Your task to perform on an android device: Open Google Chrome and open the bookmarks view Image 0: 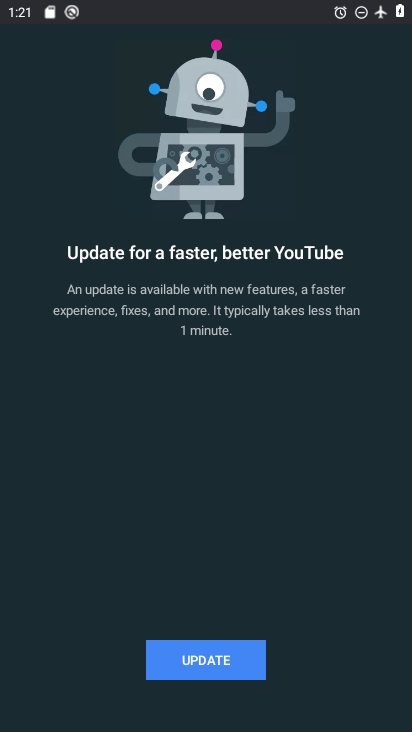
Step 0: press home button
Your task to perform on an android device: Open Google Chrome and open the bookmarks view Image 1: 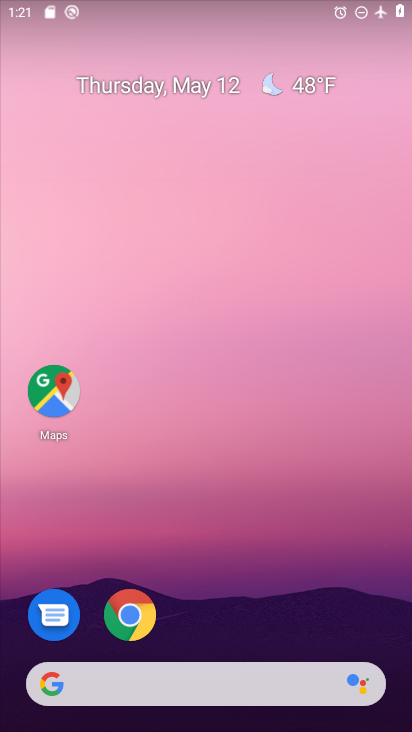
Step 1: drag from (329, 677) to (296, 3)
Your task to perform on an android device: Open Google Chrome and open the bookmarks view Image 2: 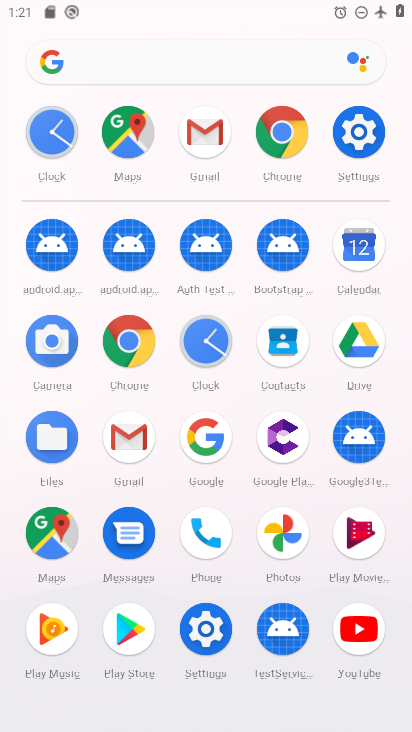
Step 2: click (127, 345)
Your task to perform on an android device: Open Google Chrome and open the bookmarks view Image 3: 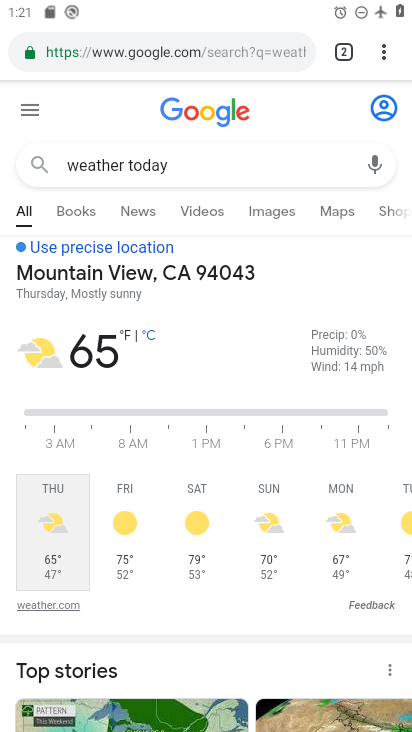
Step 3: task complete